Your task to perform on an android device: Open Maps and search for coffee Image 0: 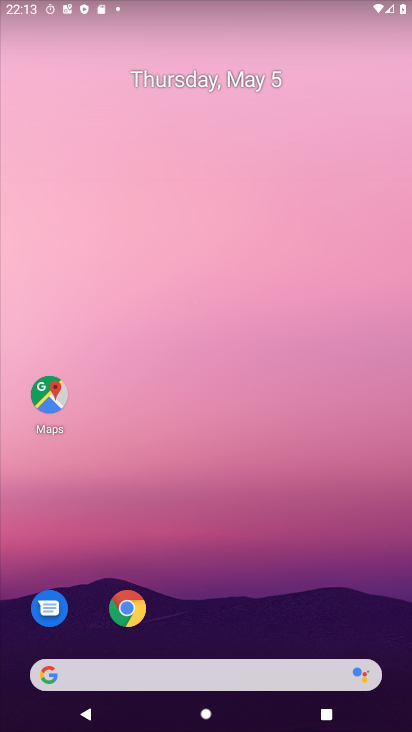
Step 0: drag from (228, 642) to (236, 102)
Your task to perform on an android device: Open Maps and search for coffee Image 1: 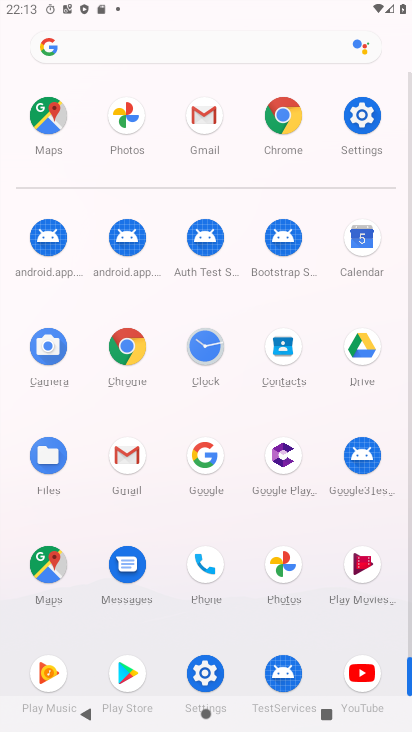
Step 1: click (44, 557)
Your task to perform on an android device: Open Maps and search for coffee Image 2: 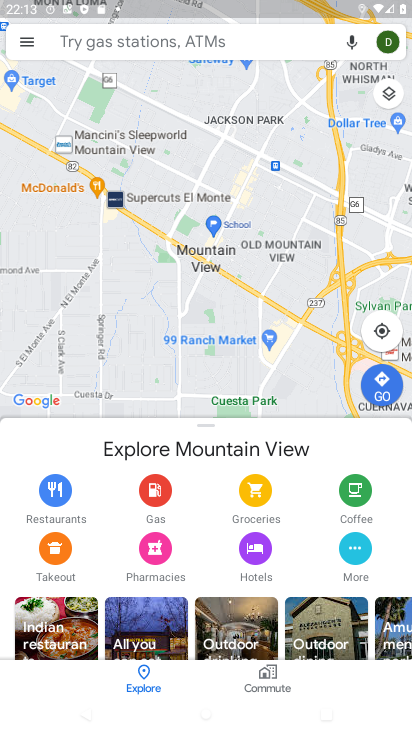
Step 2: click (222, 33)
Your task to perform on an android device: Open Maps and search for coffee Image 3: 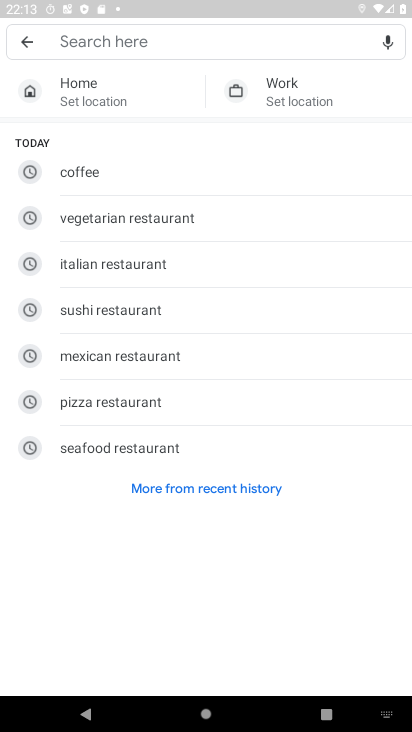
Step 3: type "coffee"
Your task to perform on an android device: Open Maps and search for coffee Image 4: 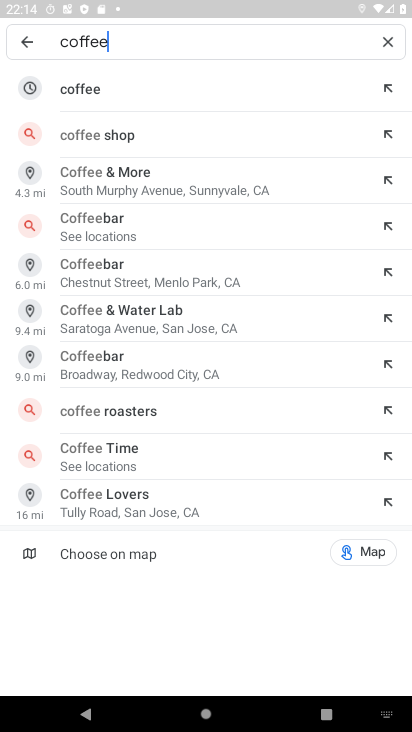
Step 4: click (130, 106)
Your task to perform on an android device: Open Maps and search for coffee Image 5: 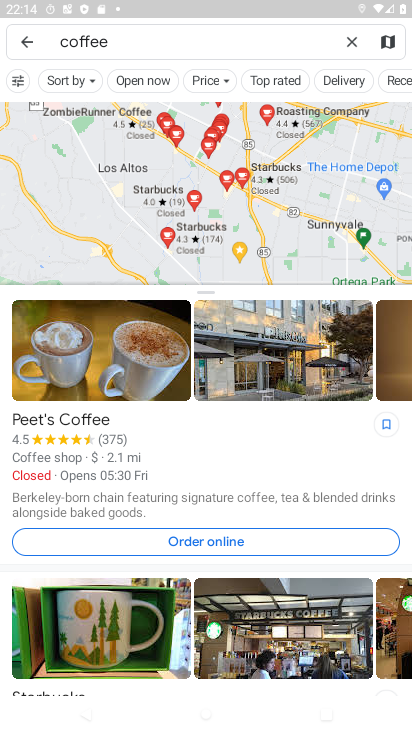
Step 5: task complete